Your task to perform on an android device: search for starred emails in the gmail app Image 0: 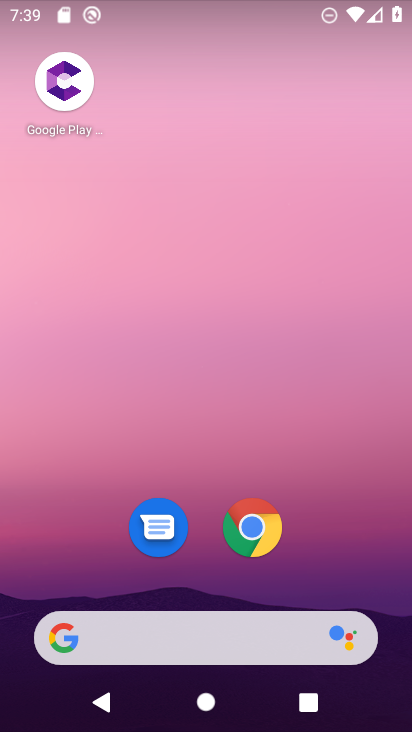
Step 0: press home button
Your task to perform on an android device: search for starred emails in the gmail app Image 1: 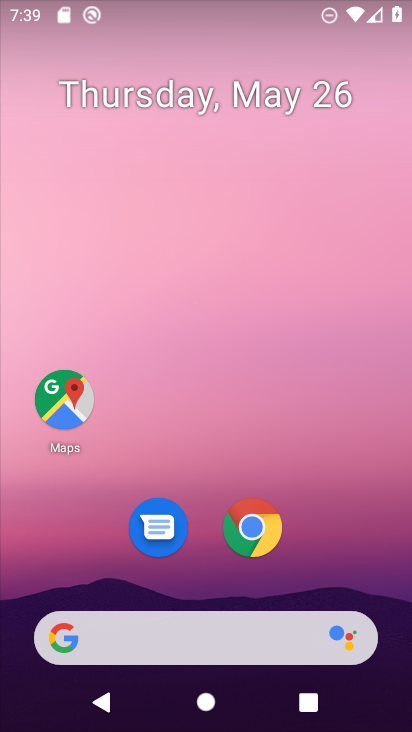
Step 1: drag from (5, 607) to (232, 104)
Your task to perform on an android device: search for starred emails in the gmail app Image 2: 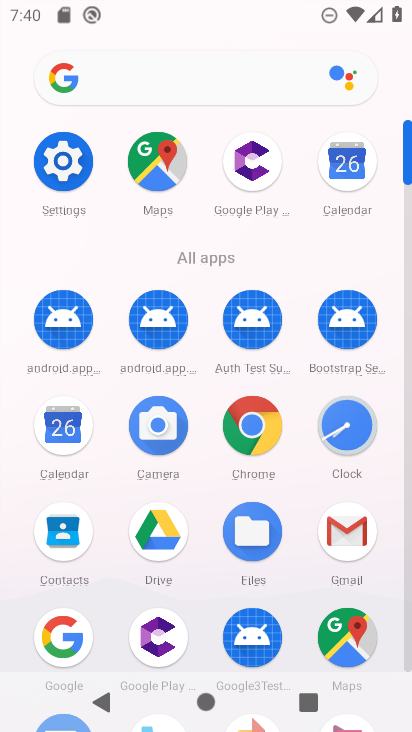
Step 2: click (364, 522)
Your task to perform on an android device: search for starred emails in the gmail app Image 3: 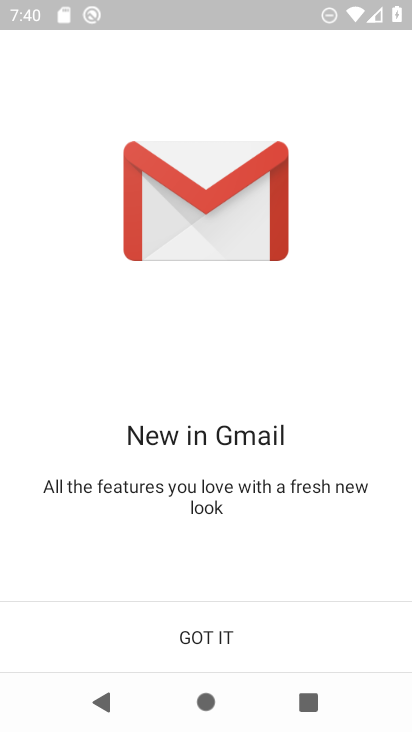
Step 3: click (205, 631)
Your task to perform on an android device: search for starred emails in the gmail app Image 4: 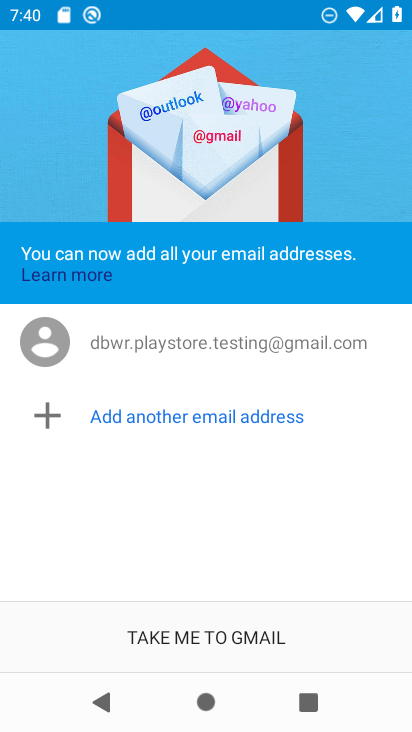
Step 4: click (195, 636)
Your task to perform on an android device: search for starred emails in the gmail app Image 5: 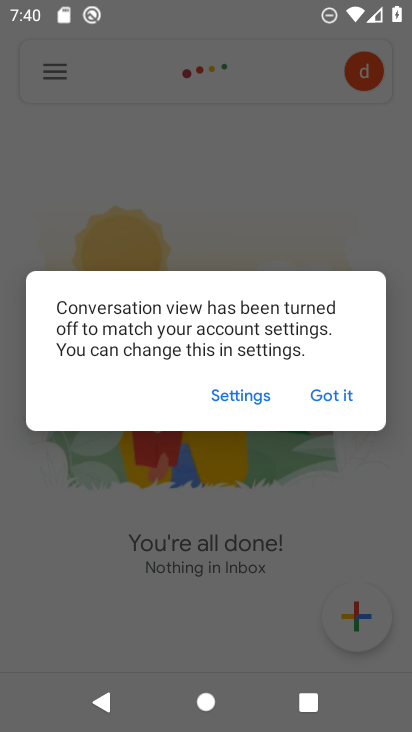
Step 5: click (336, 396)
Your task to perform on an android device: search for starred emails in the gmail app Image 6: 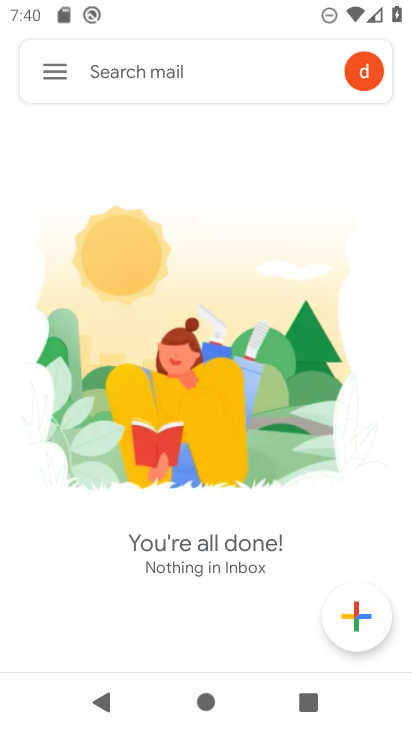
Step 6: click (61, 67)
Your task to perform on an android device: search for starred emails in the gmail app Image 7: 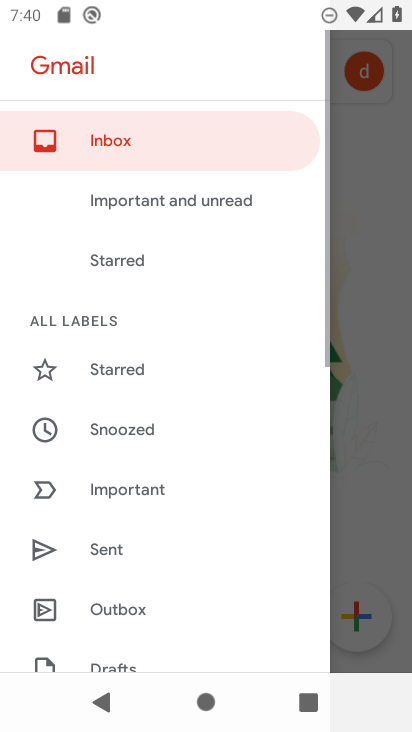
Step 7: click (160, 373)
Your task to perform on an android device: search for starred emails in the gmail app Image 8: 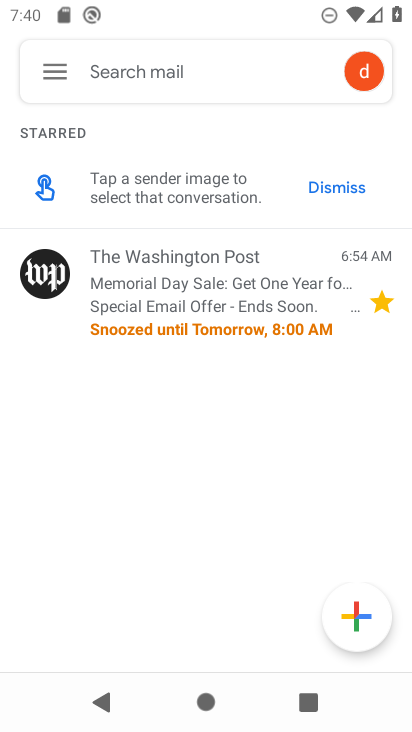
Step 8: task complete